Your task to perform on an android device: Open Google Chrome and click the shortcut for Amazon.com Image 0: 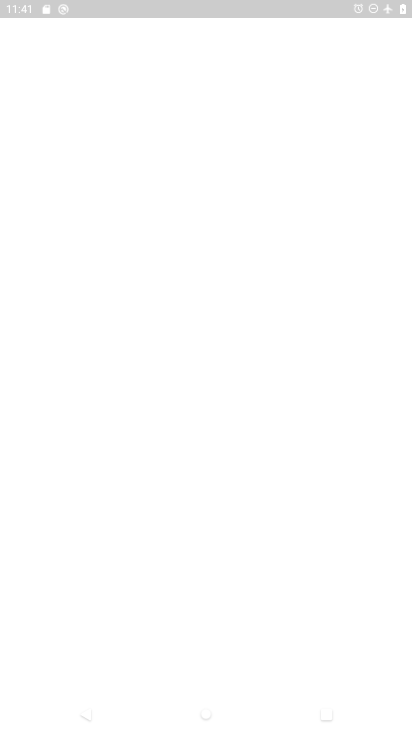
Step 0: click (341, 624)
Your task to perform on an android device: Open Google Chrome and click the shortcut for Amazon.com Image 1: 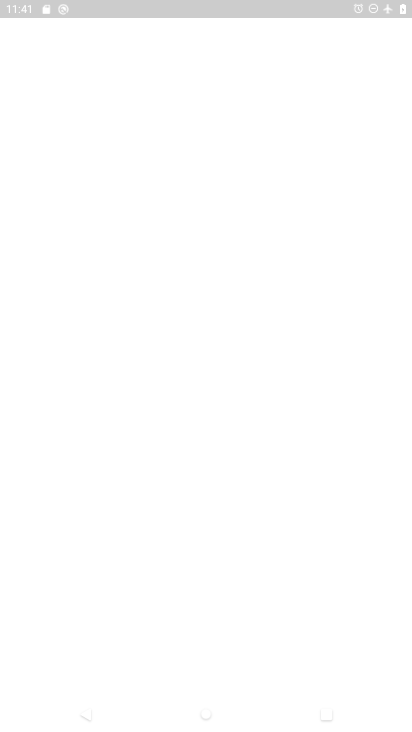
Step 1: press home button
Your task to perform on an android device: Open Google Chrome and click the shortcut for Amazon.com Image 2: 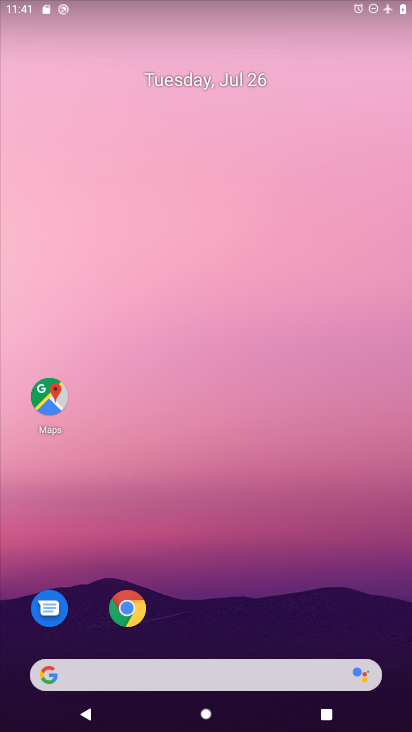
Step 2: drag from (300, 567) to (222, 5)
Your task to perform on an android device: Open Google Chrome and click the shortcut for Amazon.com Image 3: 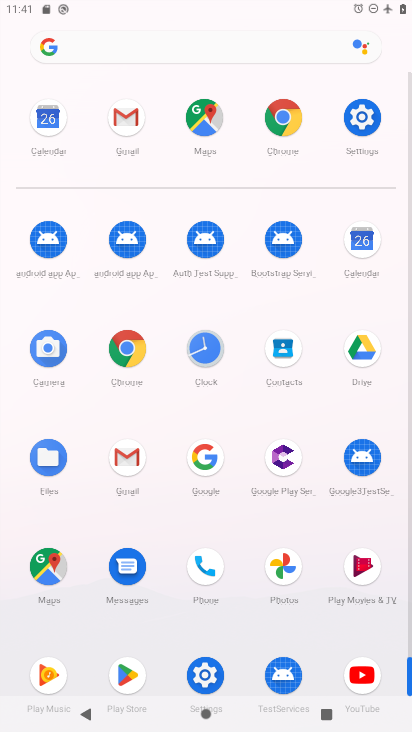
Step 3: click (281, 113)
Your task to perform on an android device: Open Google Chrome and click the shortcut for Amazon.com Image 4: 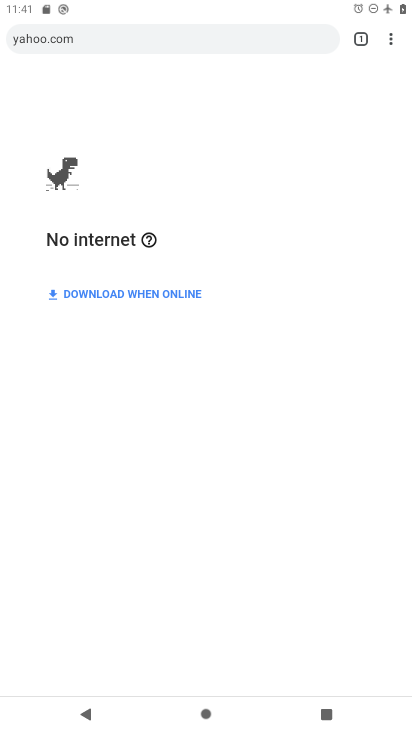
Step 4: drag from (391, 36) to (311, 81)
Your task to perform on an android device: Open Google Chrome and click the shortcut for Amazon.com Image 5: 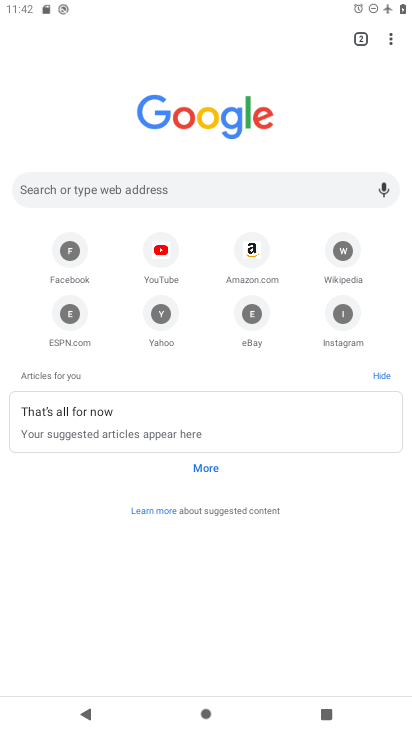
Step 5: click (257, 240)
Your task to perform on an android device: Open Google Chrome and click the shortcut for Amazon.com Image 6: 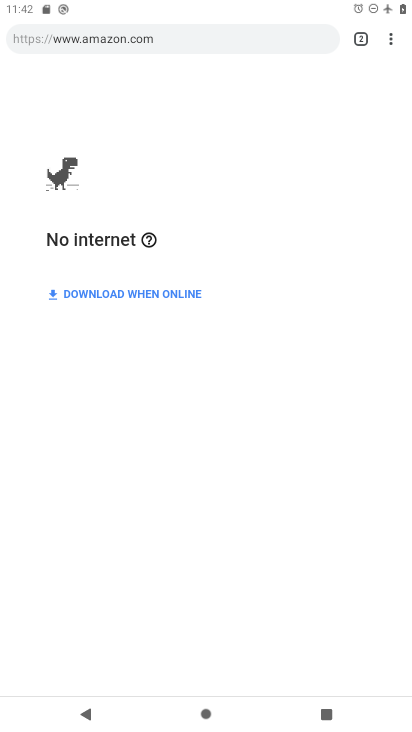
Step 6: task complete